Your task to perform on an android device: toggle translation in the chrome app Image 0: 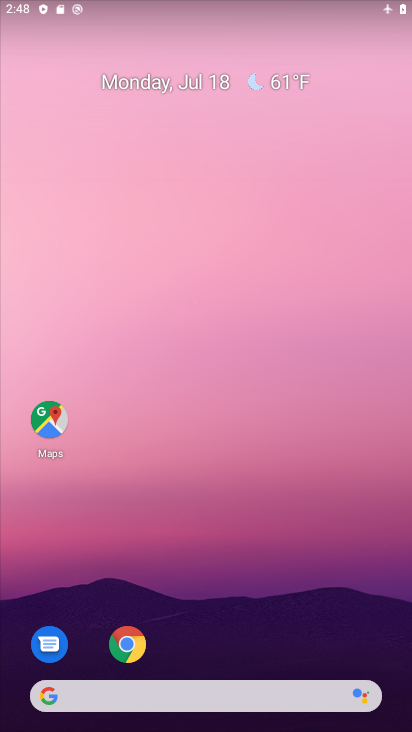
Step 0: click (126, 653)
Your task to perform on an android device: toggle translation in the chrome app Image 1: 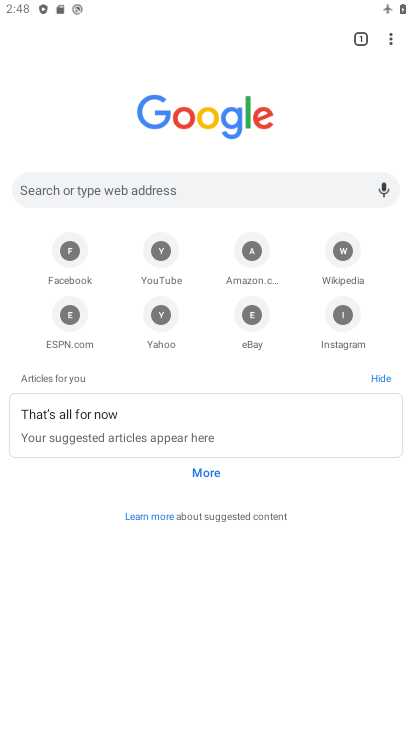
Step 1: click (392, 50)
Your task to perform on an android device: toggle translation in the chrome app Image 2: 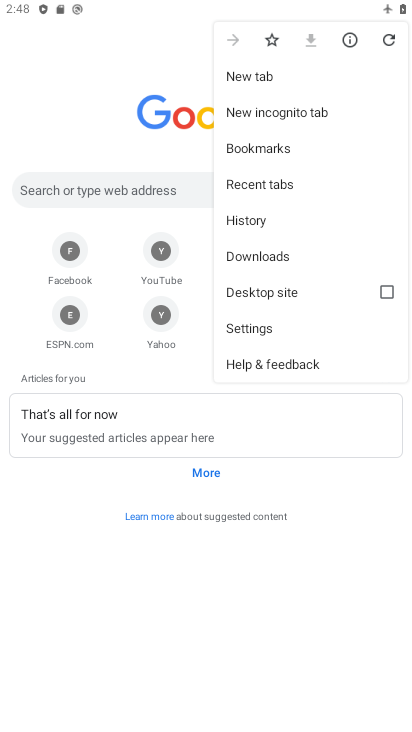
Step 2: click (272, 319)
Your task to perform on an android device: toggle translation in the chrome app Image 3: 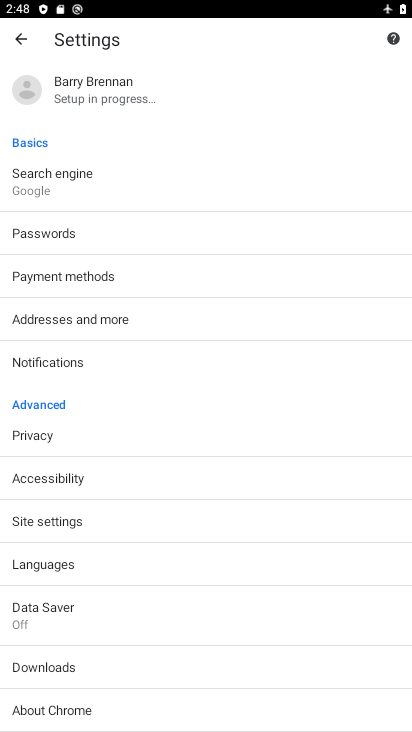
Step 3: click (116, 561)
Your task to perform on an android device: toggle translation in the chrome app Image 4: 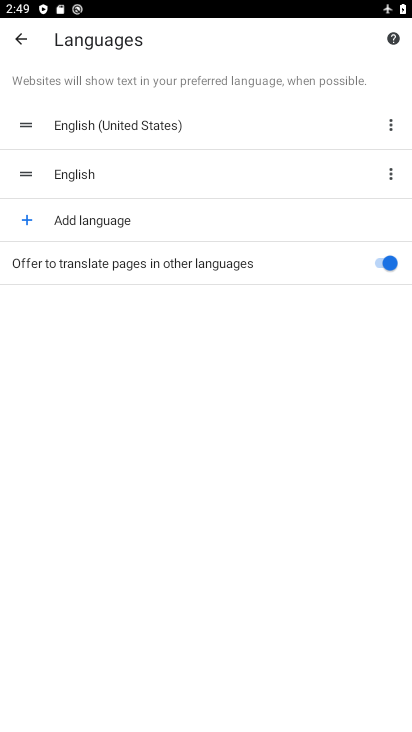
Step 4: click (389, 264)
Your task to perform on an android device: toggle translation in the chrome app Image 5: 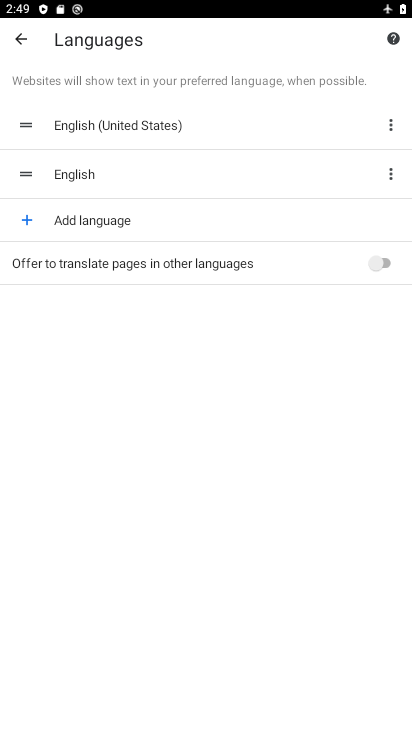
Step 5: task complete